Your task to perform on an android device: Search for Italian restaurants on Maps Image 0: 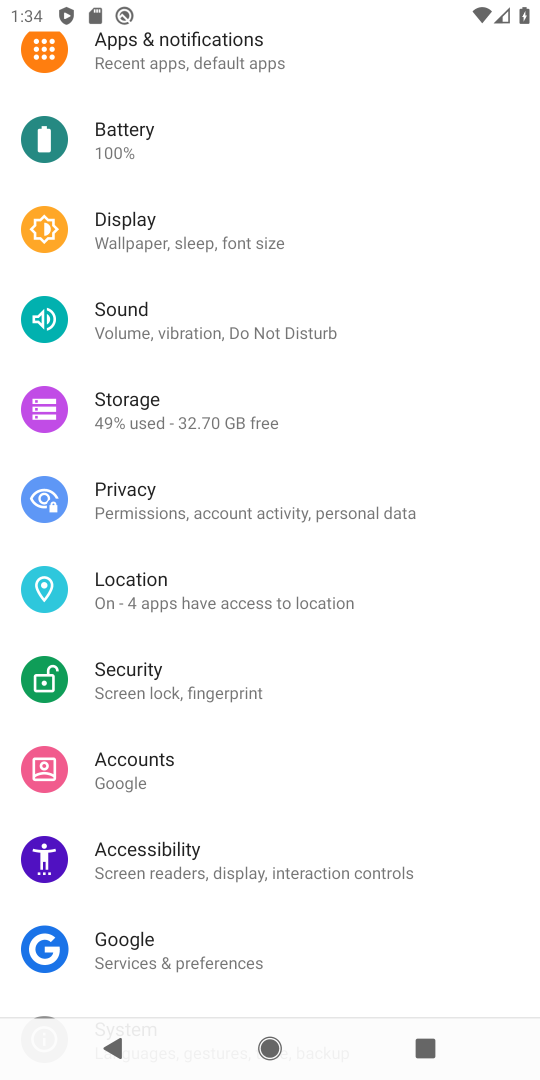
Step 0: press home button
Your task to perform on an android device: Search for Italian restaurants on Maps Image 1: 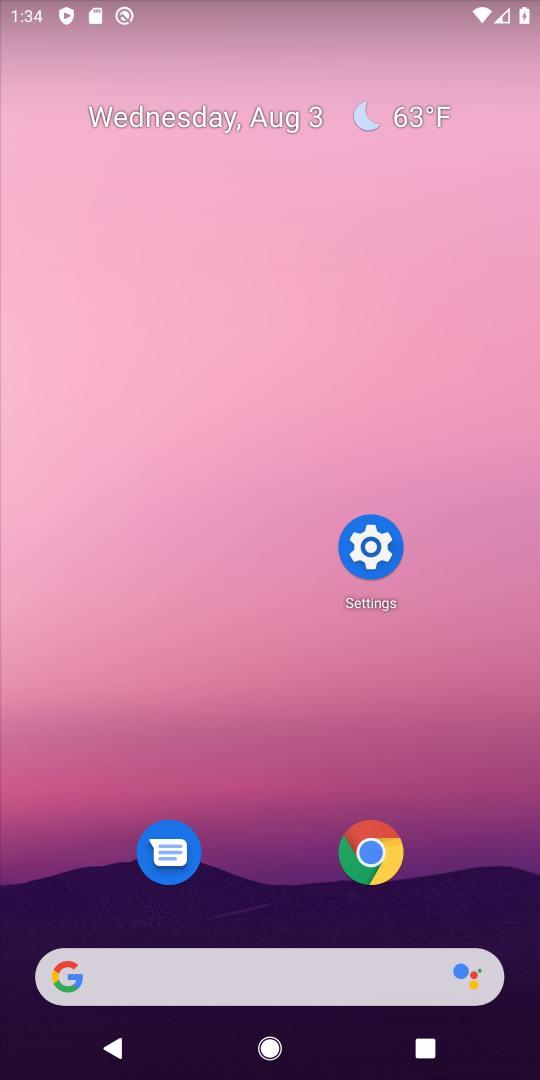
Step 1: drag from (259, 977) to (446, 129)
Your task to perform on an android device: Search for Italian restaurants on Maps Image 2: 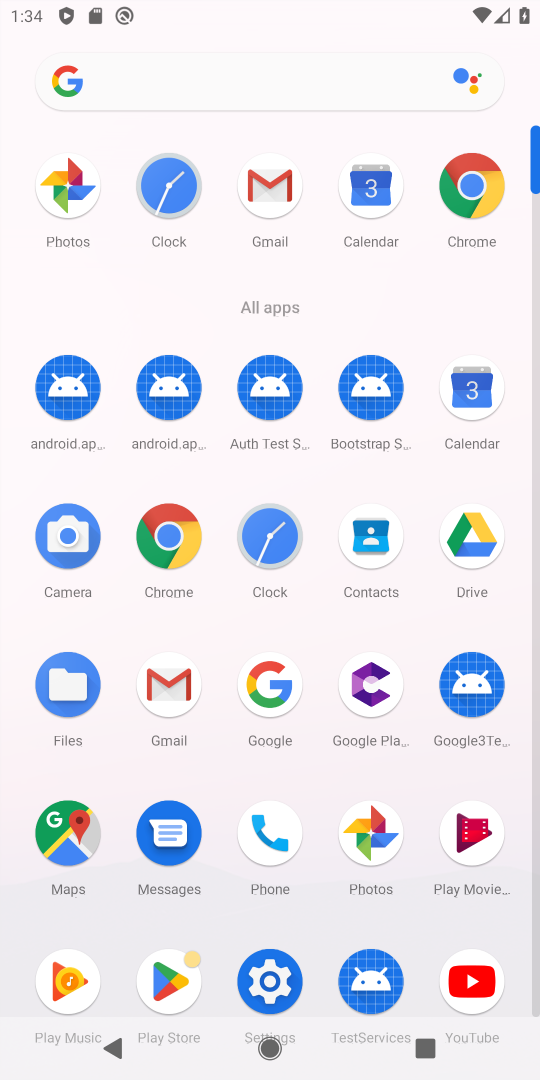
Step 2: drag from (68, 845) to (147, 500)
Your task to perform on an android device: Search for Italian restaurants on Maps Image 3: 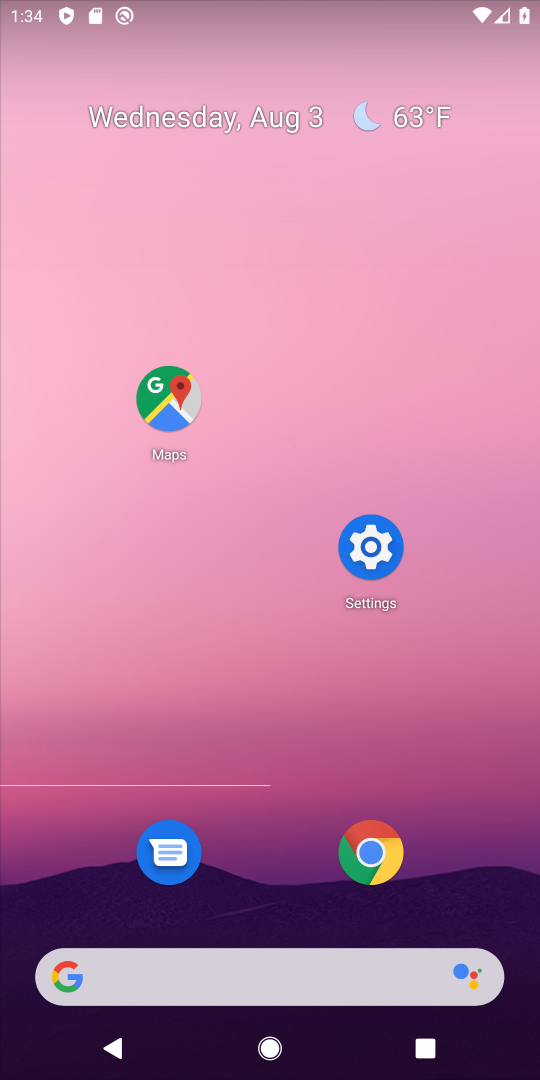
Step 3: click (172, 393)
Your task to perform on an android device: Search for Italian restaurants on Maps Image 4: 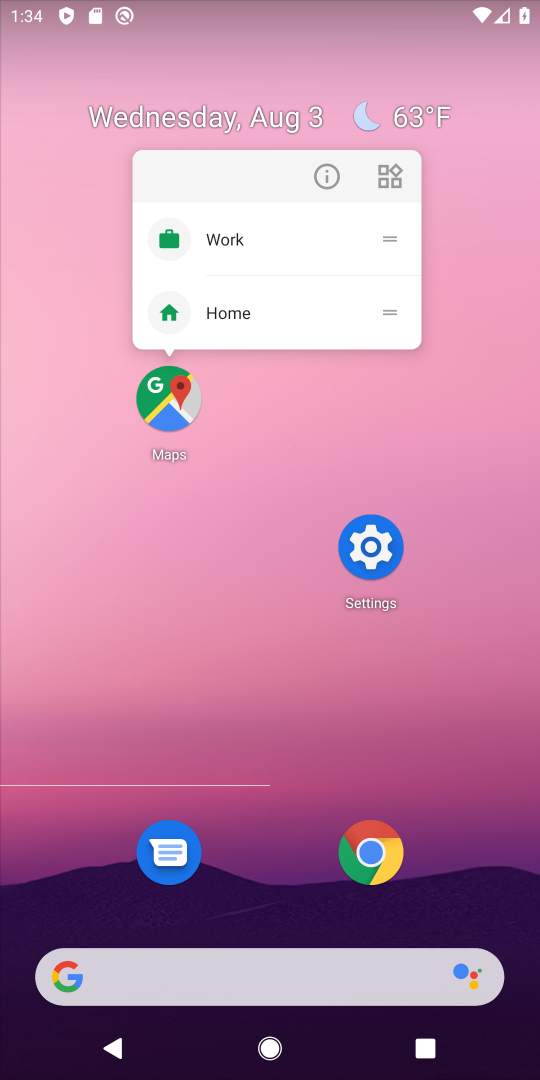
Step 4: click (172, 395)
Your task to perform on an android device: Search for Italian restaurants on Maps Image 5: 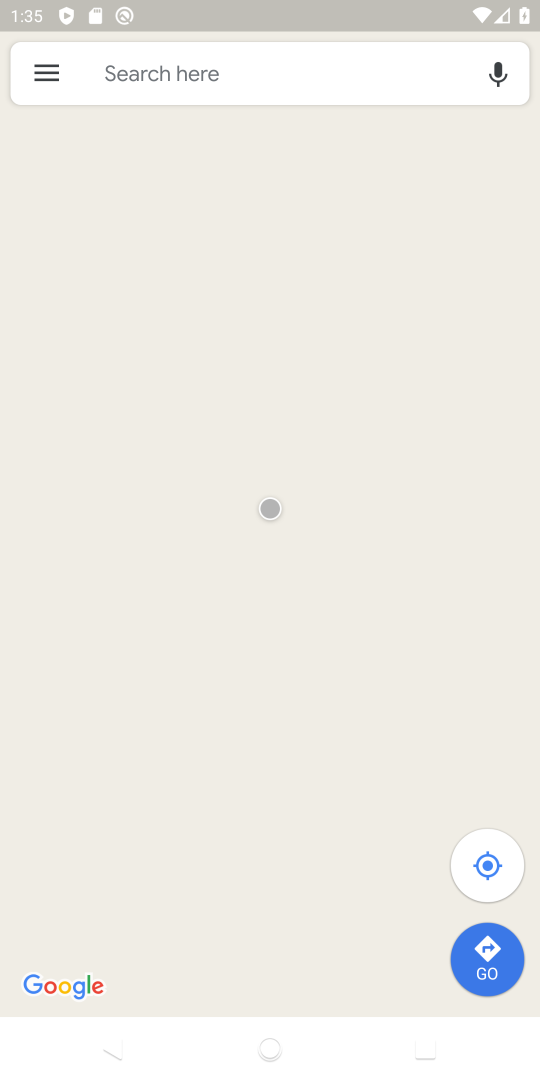
Step 5: click (262, 81)
Your task to perform on an android device: Search for Italian restaurants on Maps Image 6: 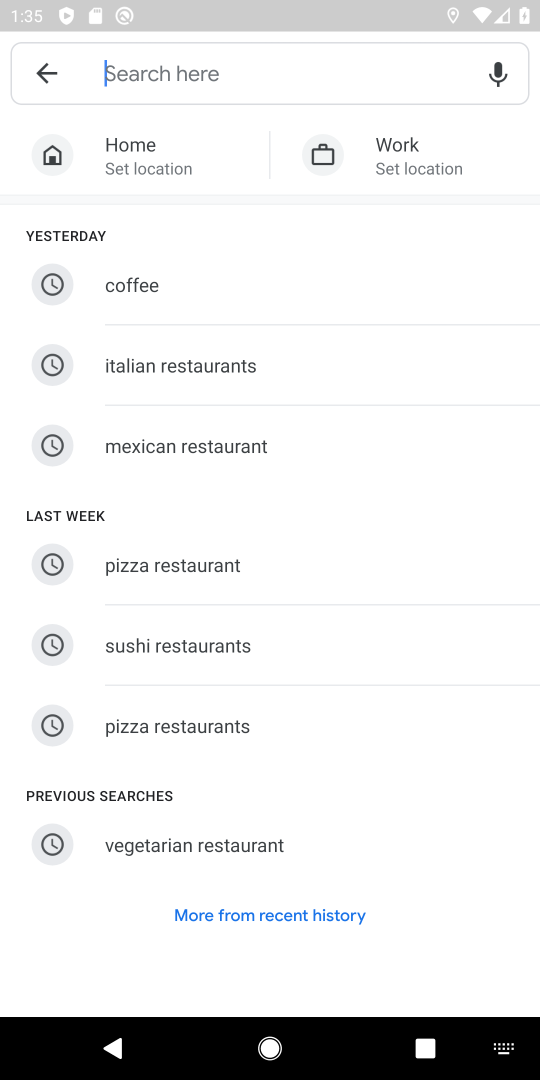
Step 6: type "Italian restaurants"
Your task to perform on an android device: Search for Italian restaurants on Maps Image 7: 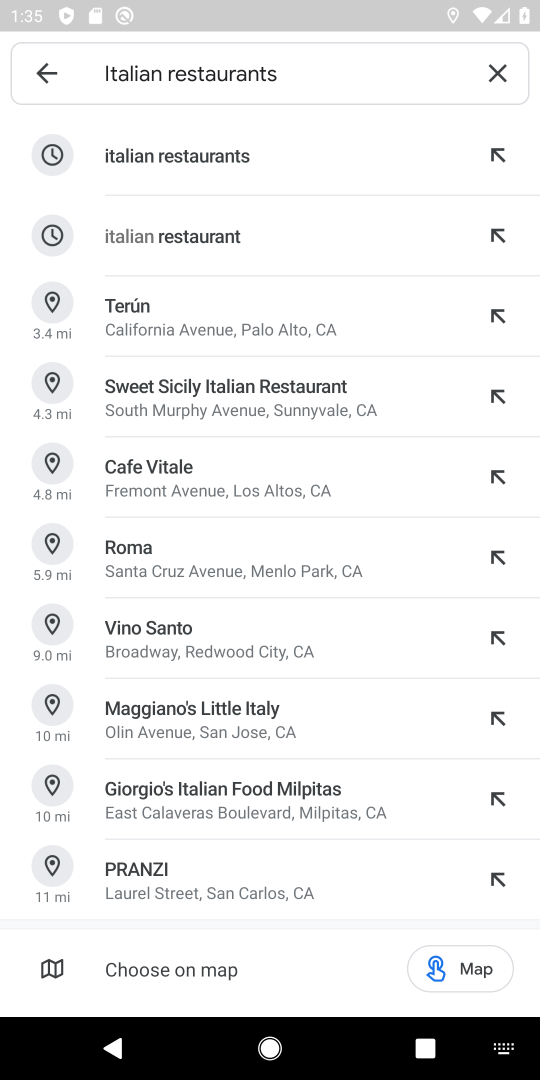
Step 7: click (211, 153)
Your task to perform on an android device: Search for Italian restaurants on Maps Image 8: 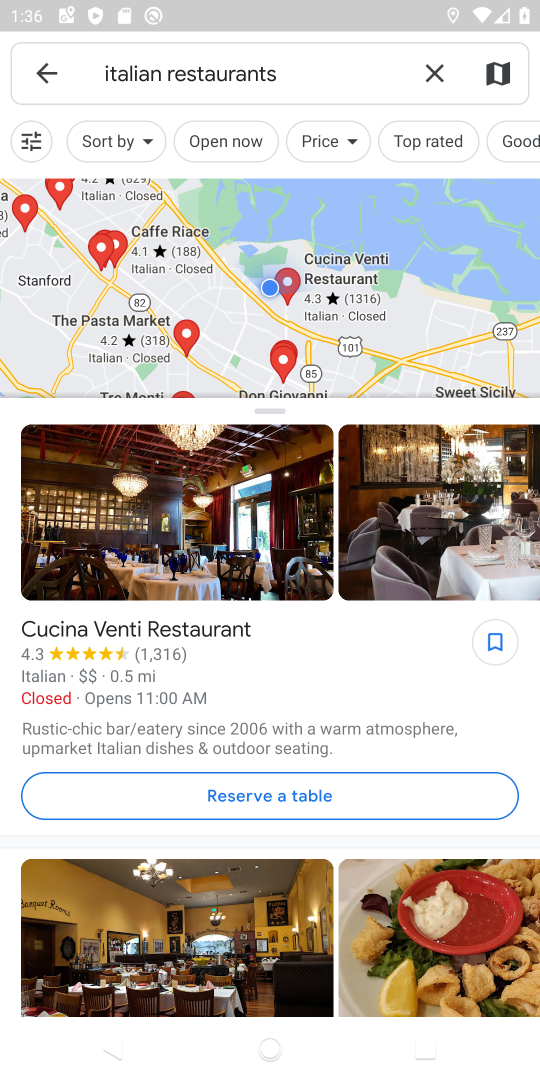
Step 8: task complete